Your task to perform on an android device: toggle show notifications on the lock screen Image 0: 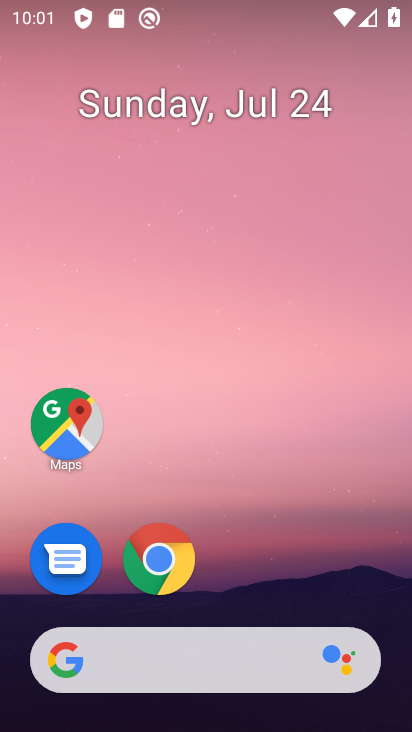
Step 0: drag from (226, 608) to (346, 0)
Your task to perform on an android device: toggle show notifications on the lock screen Image 1: 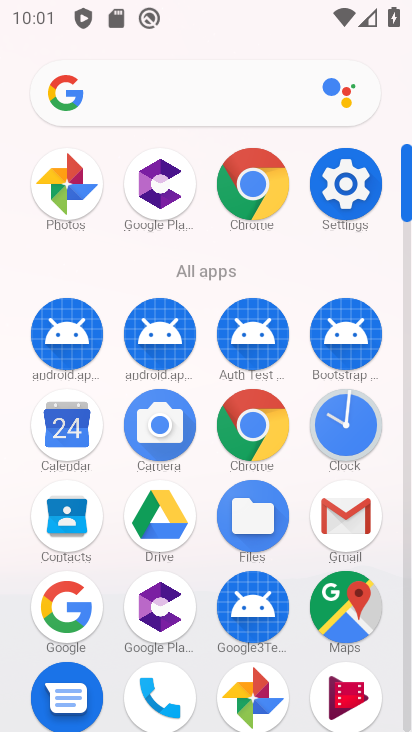
Step 1: click (341, 186)
Your task to perform on an android device: toggle show notifications on the lock screen Image 2: 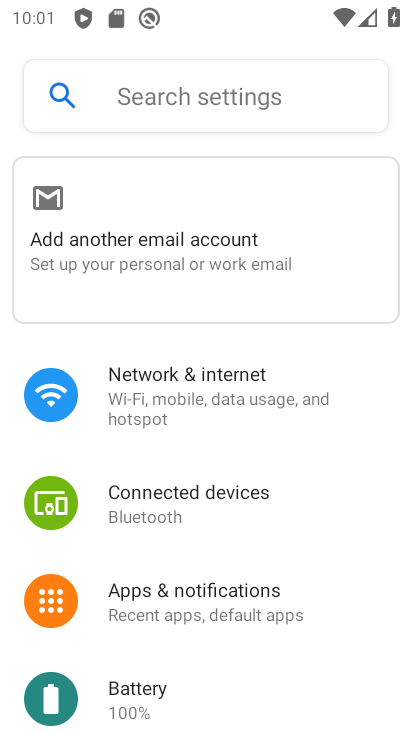
Step 2: click (202, 597)
Your task to perform on an android device: toggle show notifications on the lock screen Image 3: 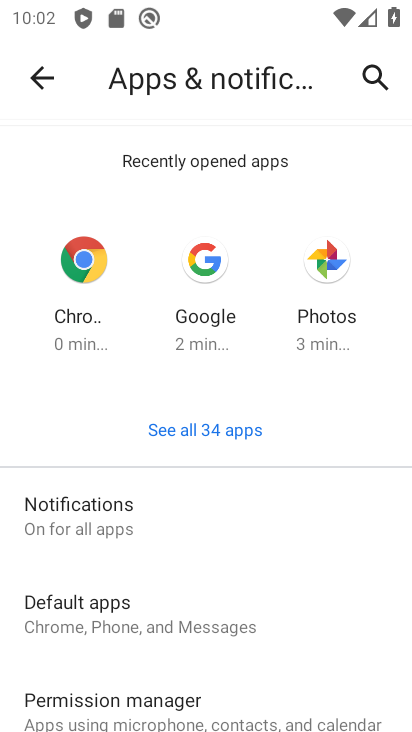
Step 3: click (171, 512)
Your task to perform on an android device: toggle show notifications on the lock screen Image 4: 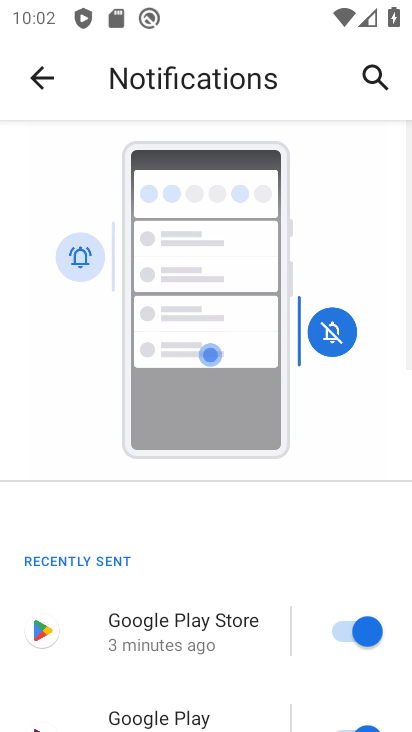
Step 4: drag from (188, 687) to (301, 94)
Your task to perform on an android device: toggle show notifications on the lock screen Image 5: 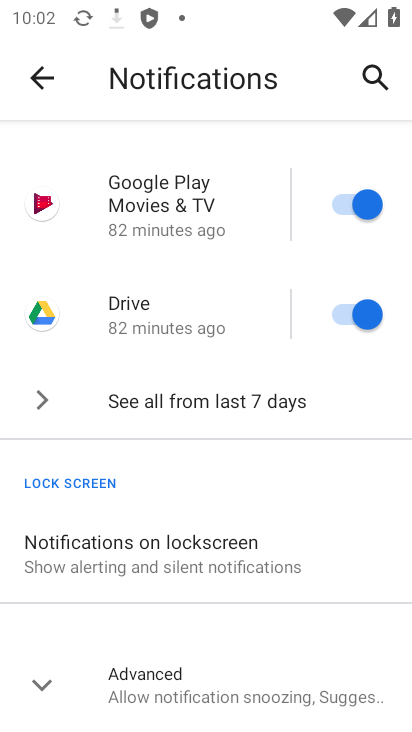
Step 5: click (131, 533)
Your task to perform on an android device: toggle show notifications on the lock screen Image 6: 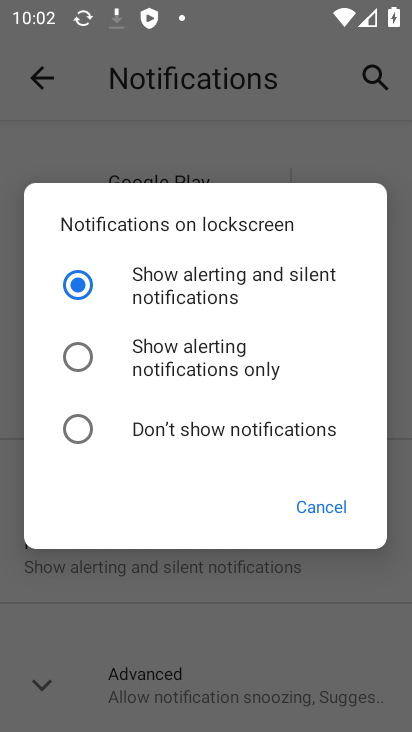
Step 6: click (78, 281)
Your task to perform on an android device: toggle show notifications on the lock screen Image 7: 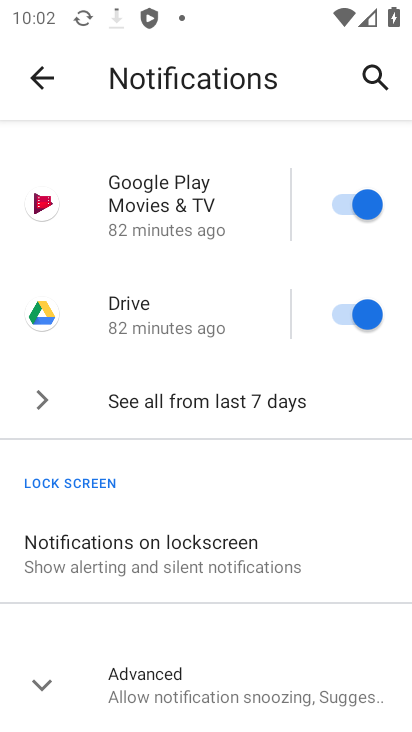
Step 7: task complete